Your task to perform on an android device: open app "PlayWell" (install if not already installed) and go to login screen Image 0: 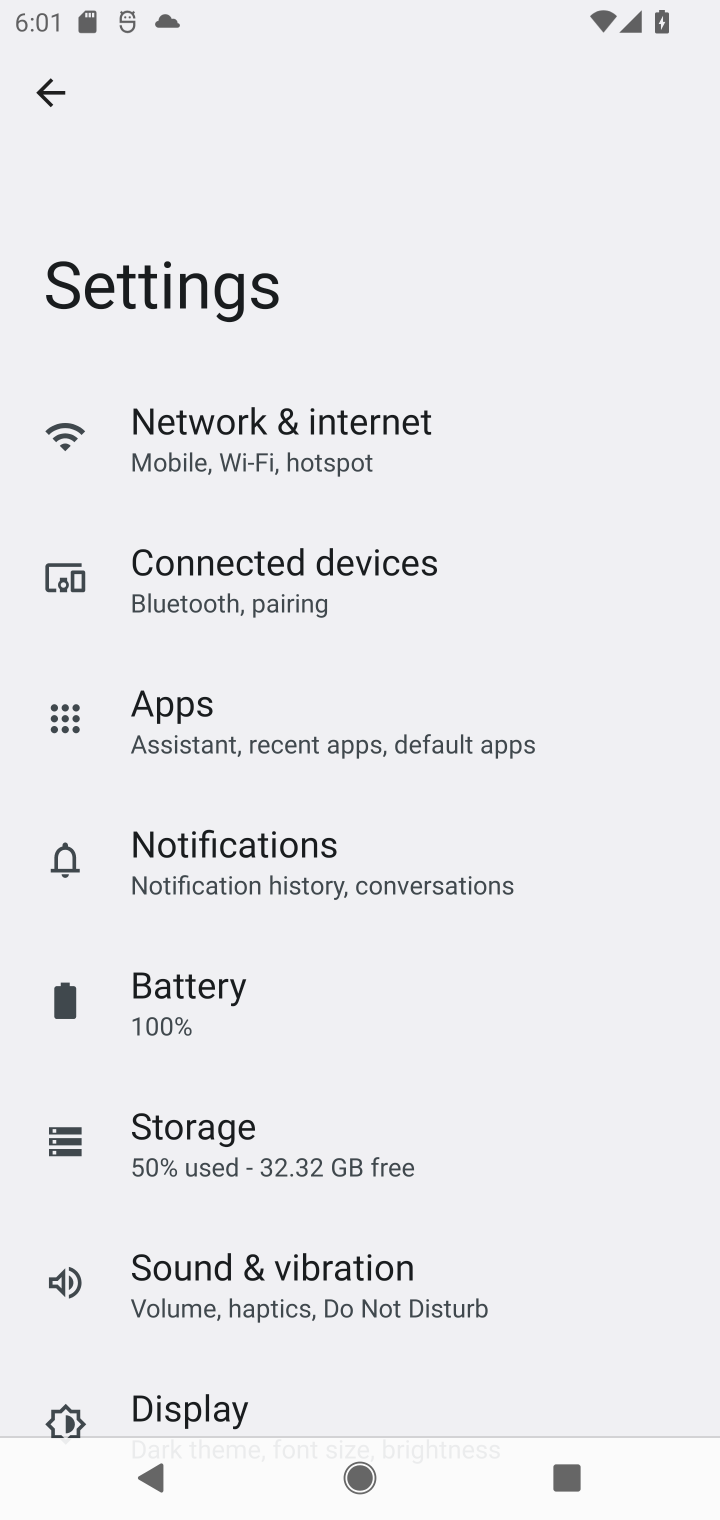
Step 0: press home button
Your task to perform on an android device: open app "PlayWell" (install if not already installed) and go to login screen Image 1: 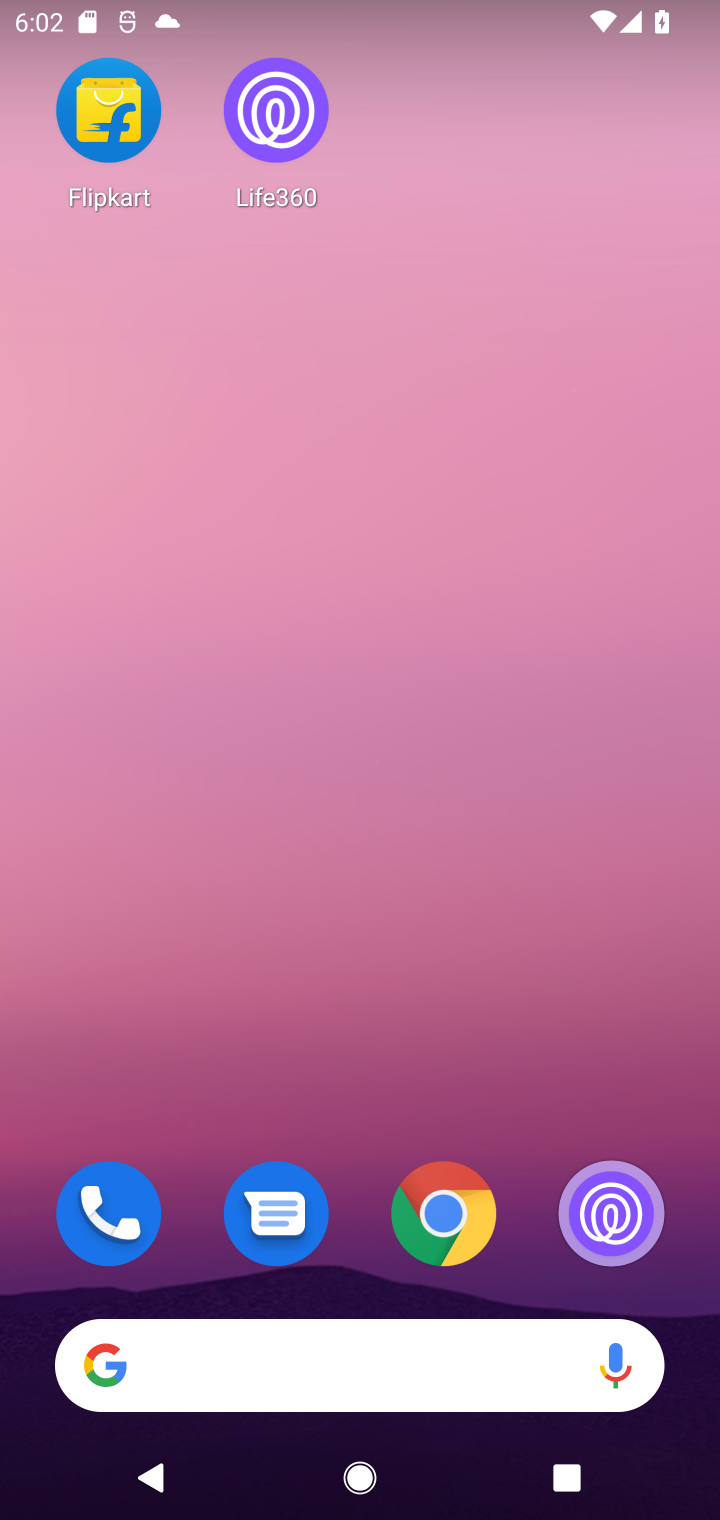
Step 1: drag from (369, 1271) to (354, 122)
Your task to perform on an android device: open app "PlayWell" (install if not already installed) and go to login screen Image 2: 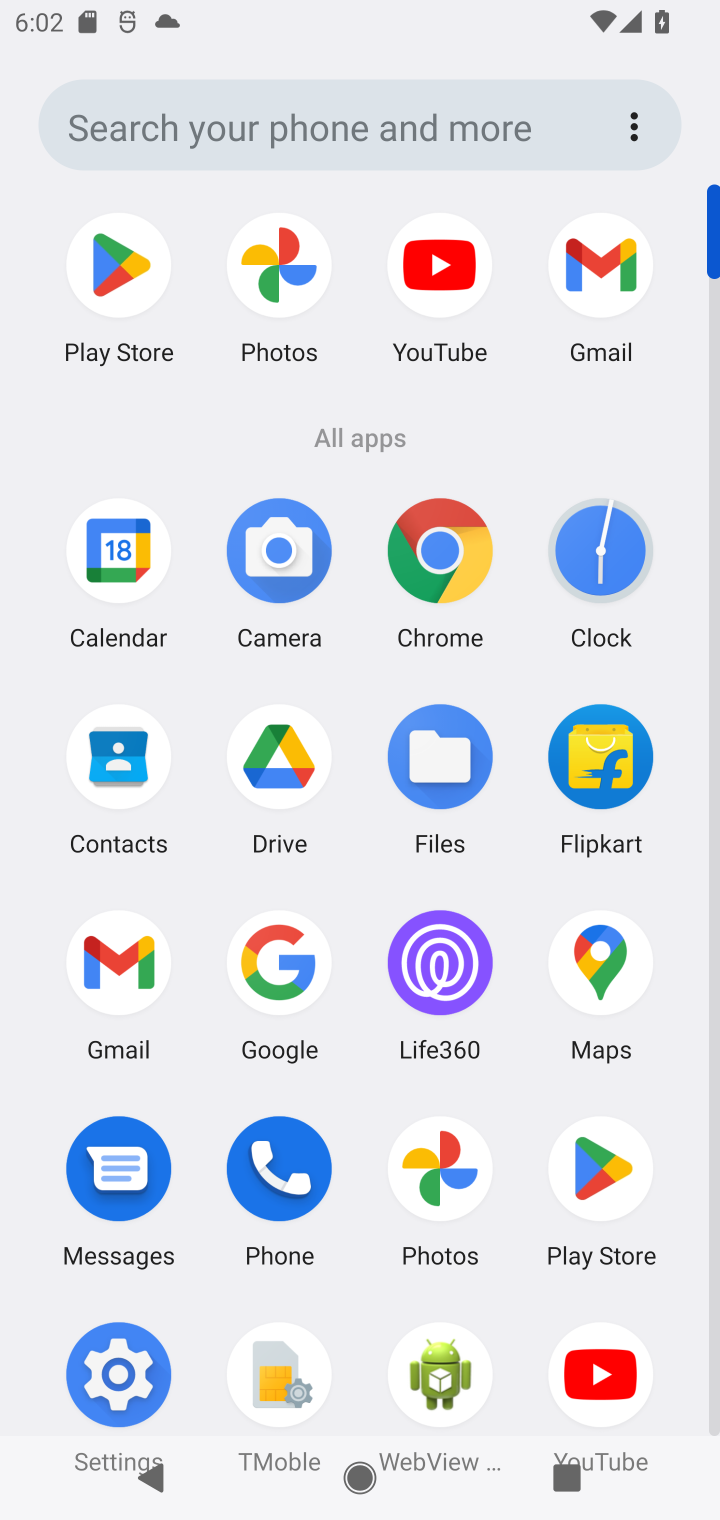
Step 2: click (590, 1160)
Your task to perform on an android device: open app "PlayWell" (install if not already installed) and go to login screen Image 3: 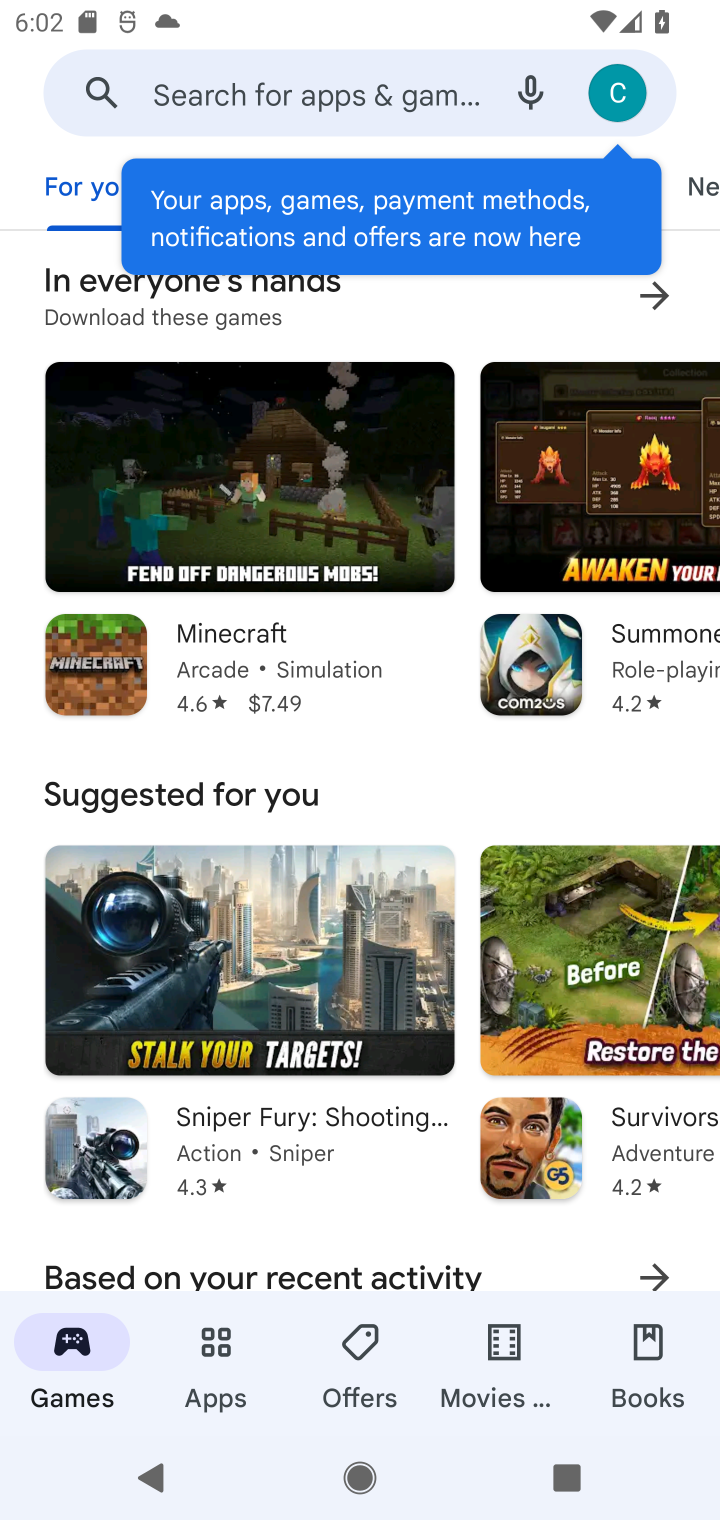
Step 3: click (243, 98)
Your task to perform on an android device: open app "PlayWell" (install if not already installed) and go to login screen Image 4: 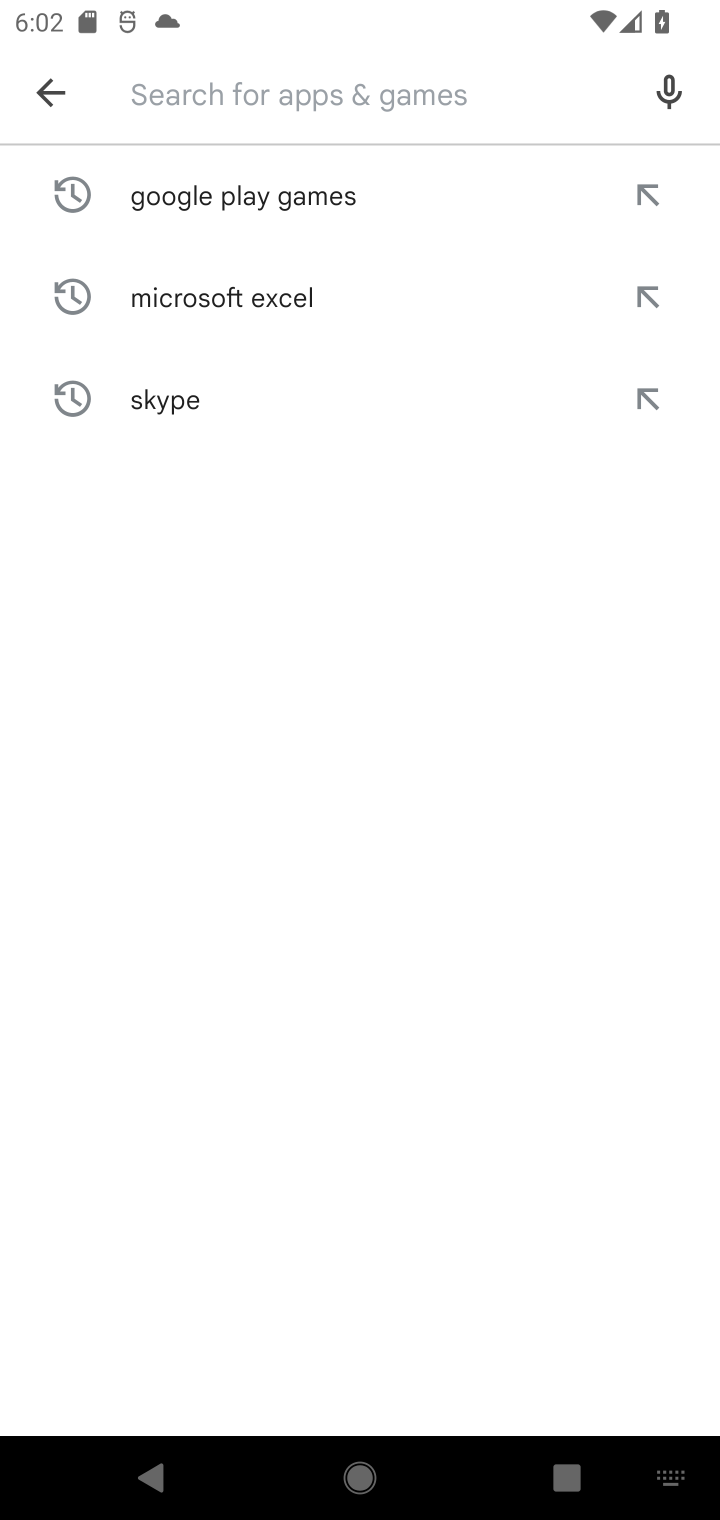
Step 4: type "PlayWell"
Your task to perform on an android device: open app "PlayWell" (install if not already installed) and go to login screen Image 5: 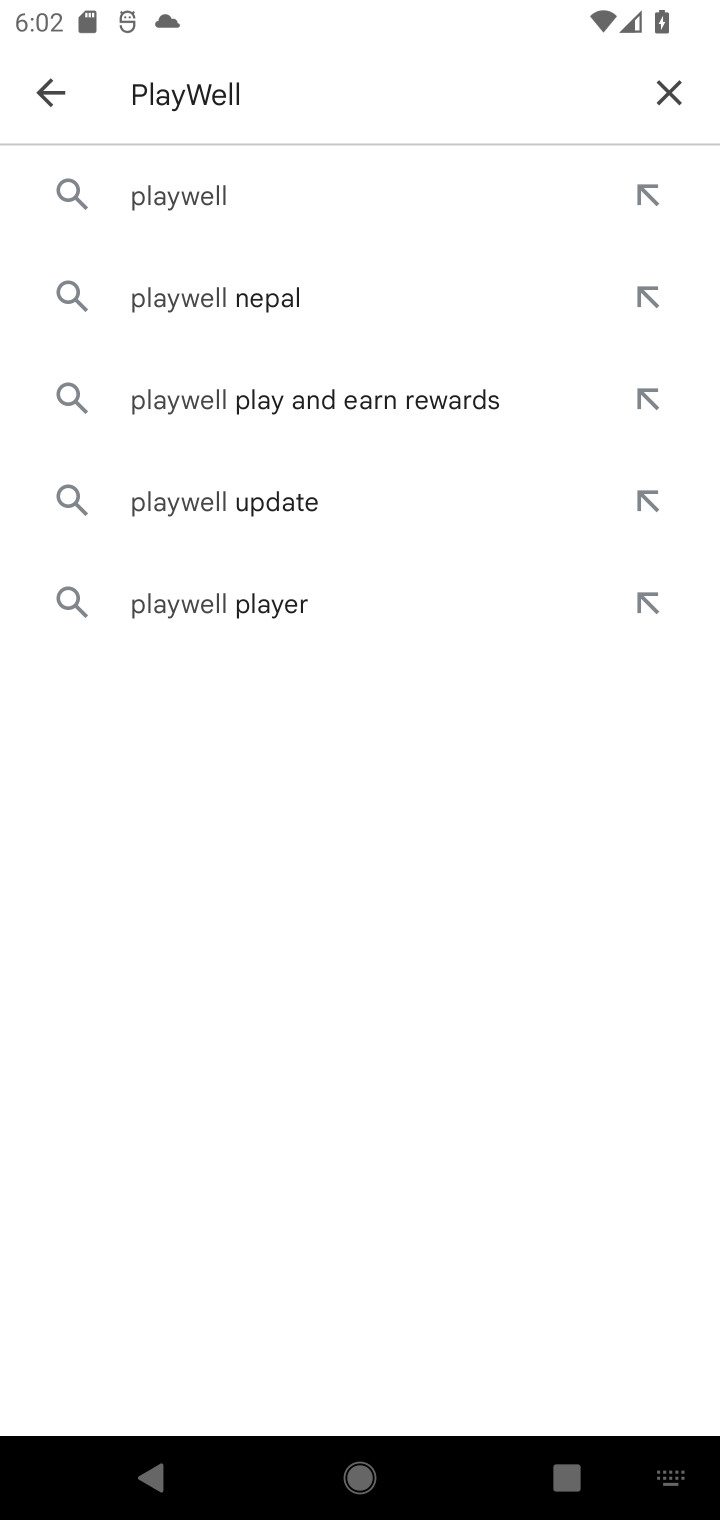
Step 5: click (249, 193)
Your task to perform on an android device: open app "PlayWell" (install if not already installed) and go to login screen Image 6: 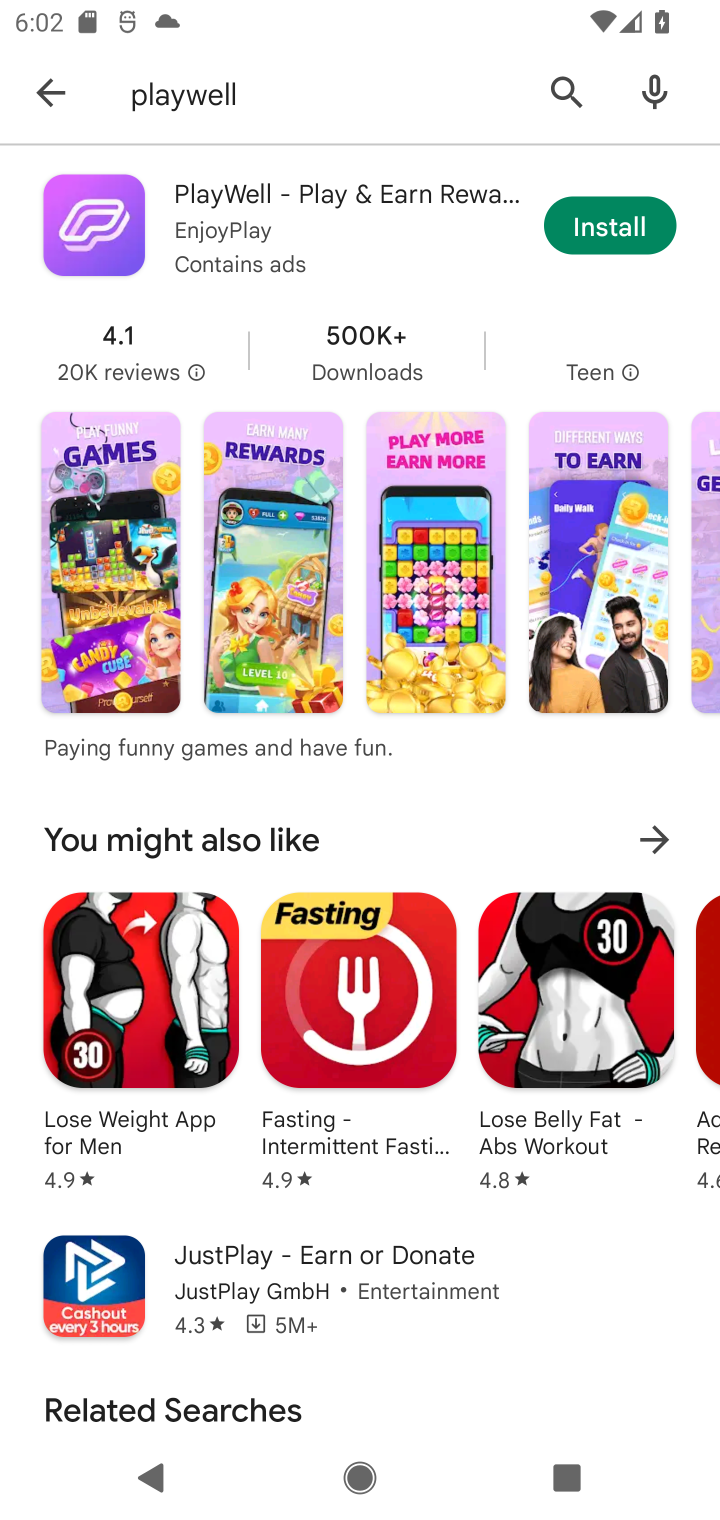
Step 6: click (612, 217)
Your task to perform on an android device: open app "PlayWell" (install if not already installed) and go to login screen Image 7: 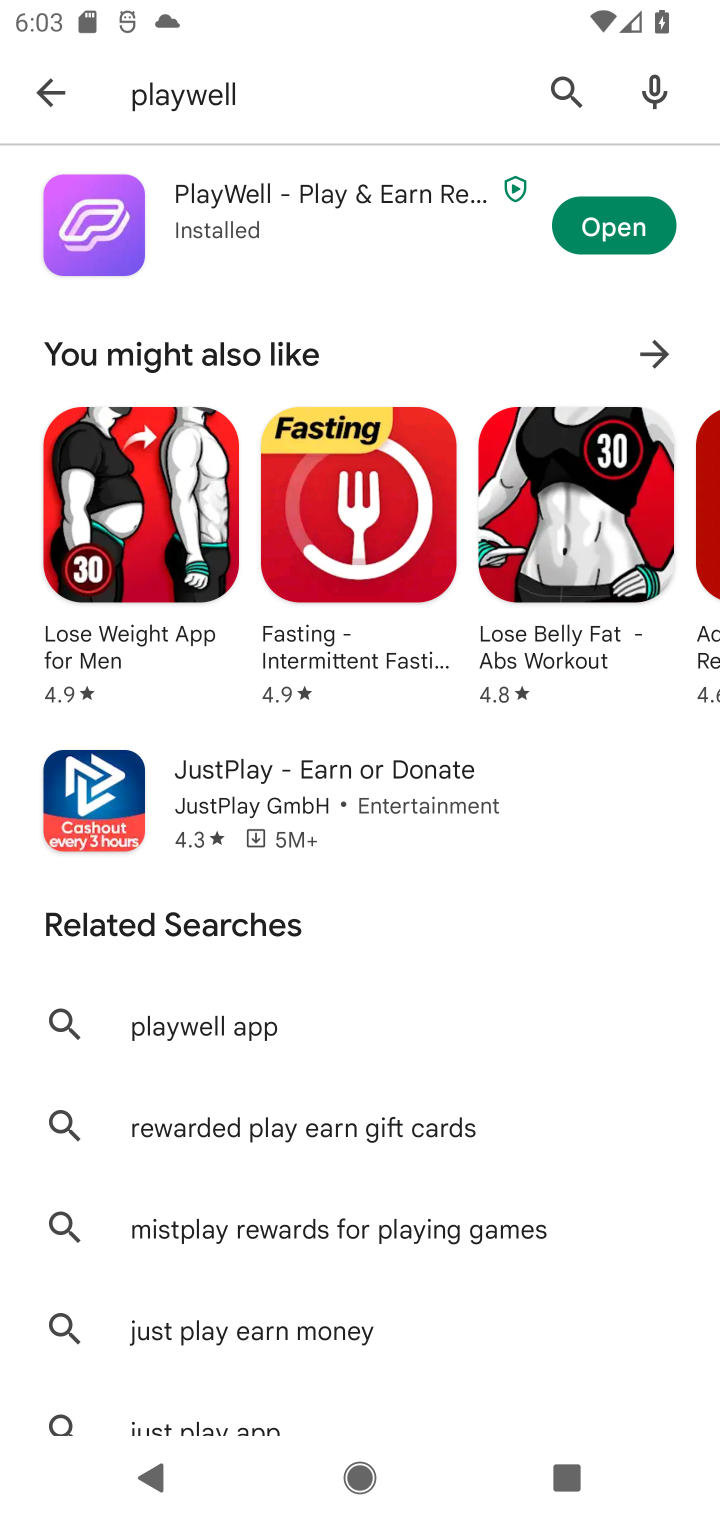
Step 7: click (610, 211)
Your task to perform on an android device: open app "PlayWell" (install if not already installed) and go to login screen Image 8: 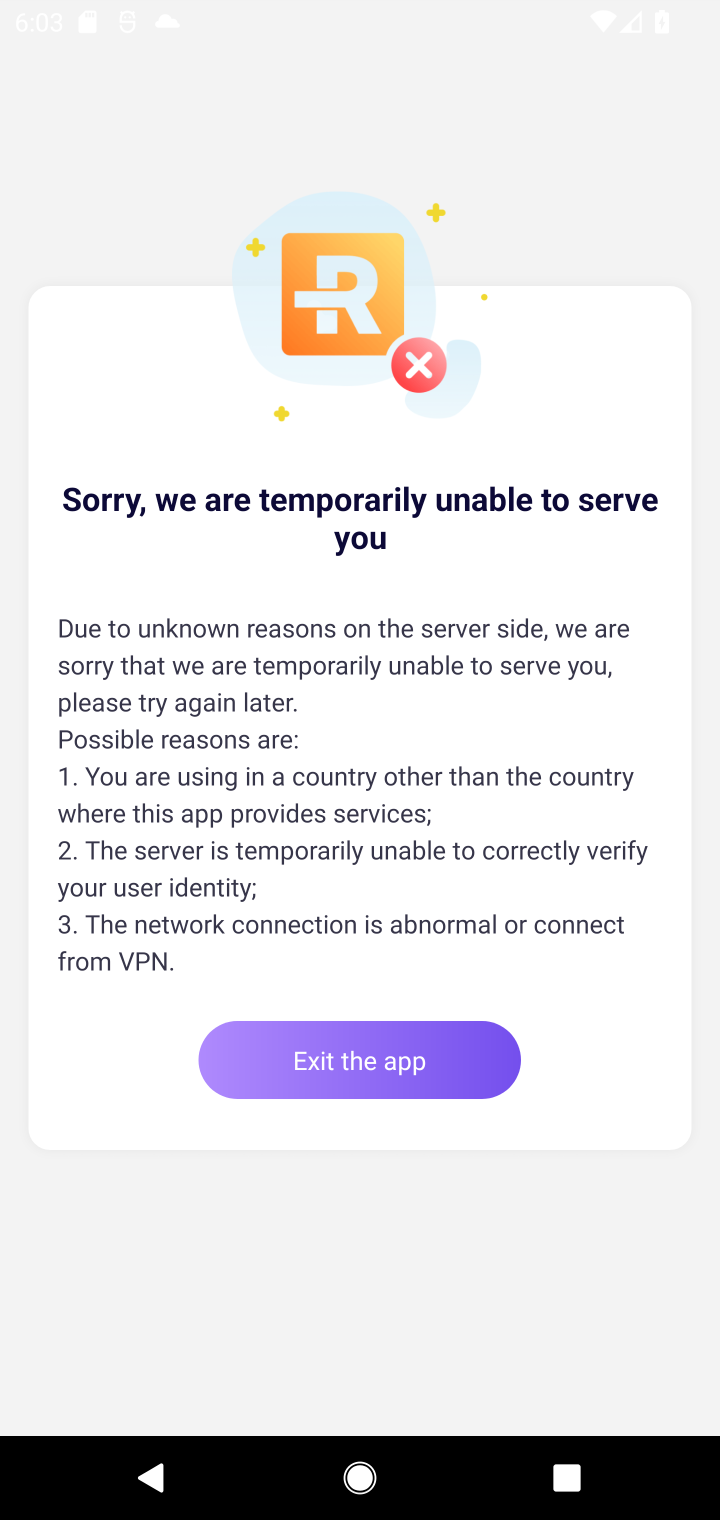
Step 8: click (352, 1056)
Your task to perform on an android device: open app "PlayWell" (install if not already installed) and go to login screen Image 9: 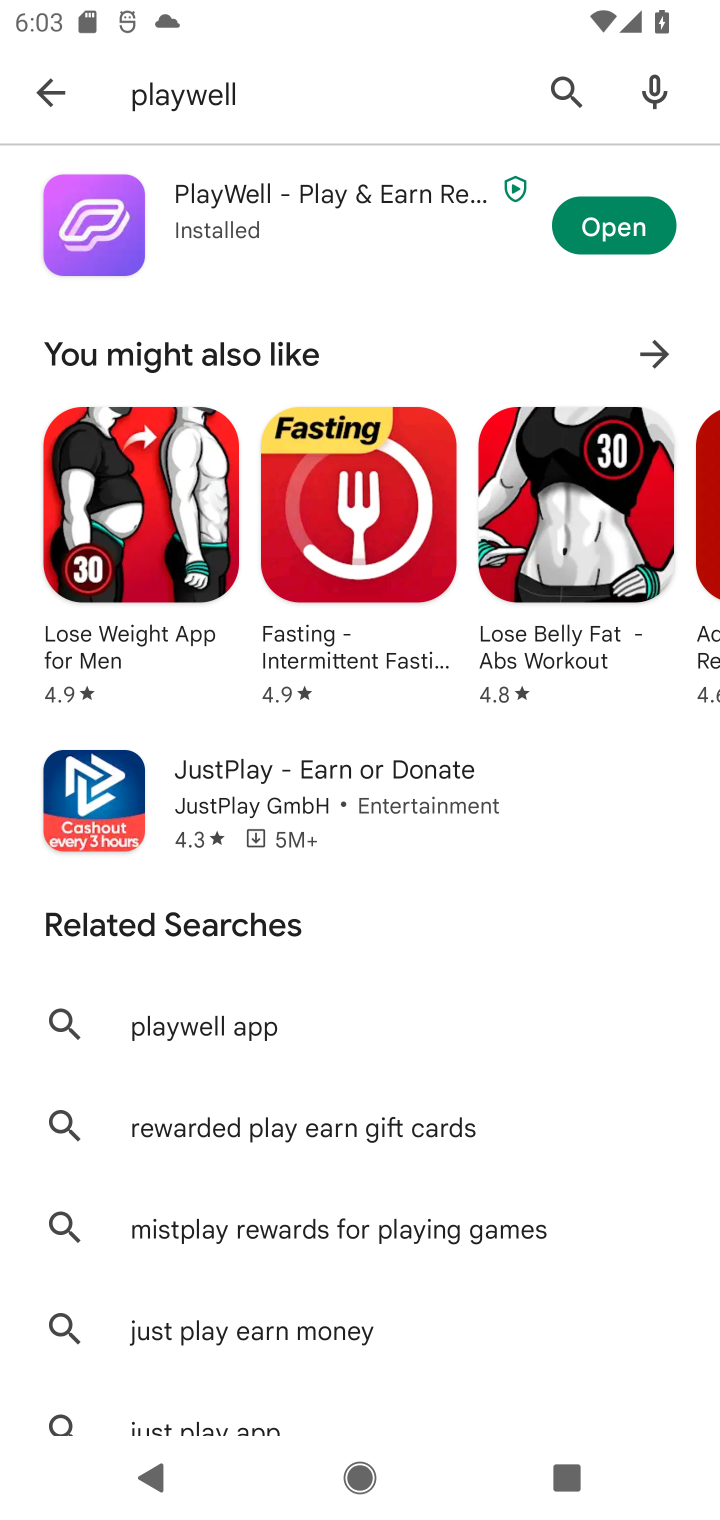
Step 9: task complete